Your task to perform on an android device: remove spam from my inbox in the gmail app Image 0: 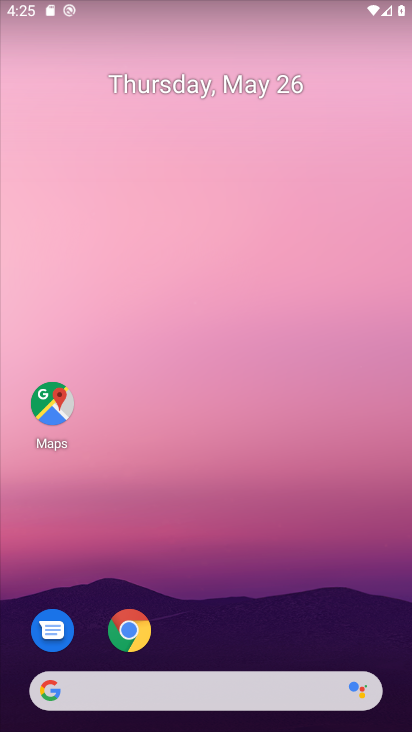
Step 0: drag from (269, 666) to (282, 172)
Your task to perform on an android device: remove spam from my inbox in the gmail app Image 1: 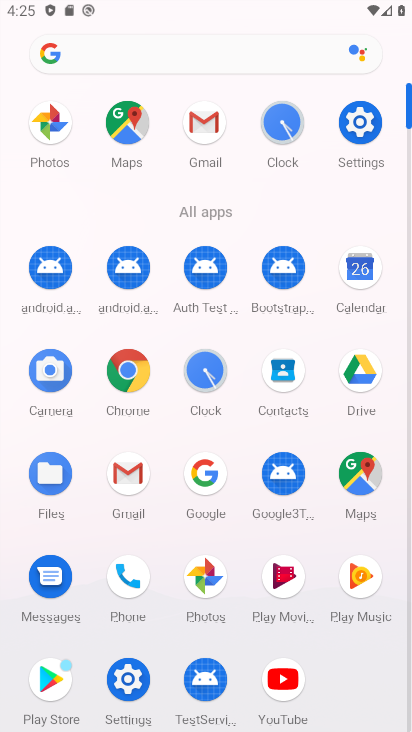
Step 1: click (215, 130)
Your task to perform on an android device: remove spam from my inbox in the gmail app Image 2: 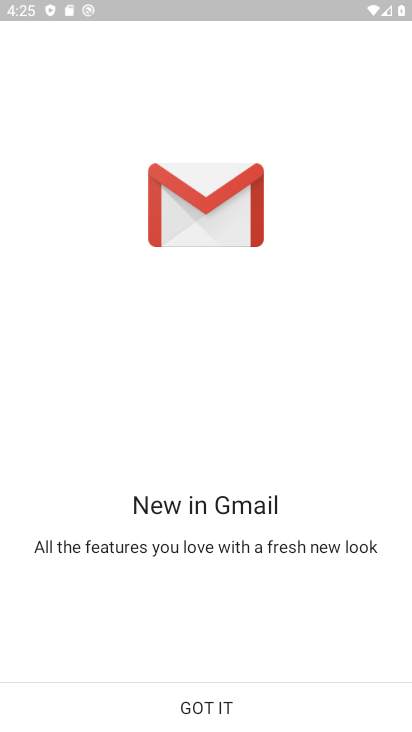
Step 2: click (192, 716)
Your task to perform on an android device: remove spam from my inbox in the gmail app Image 3: 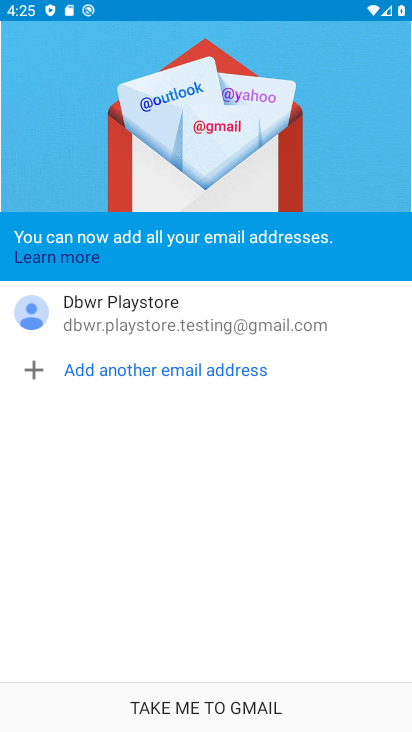
Step 3: click (192, 716)
Your task to perform on an android device: remove spam from my inbox in the gmail app Image 4: 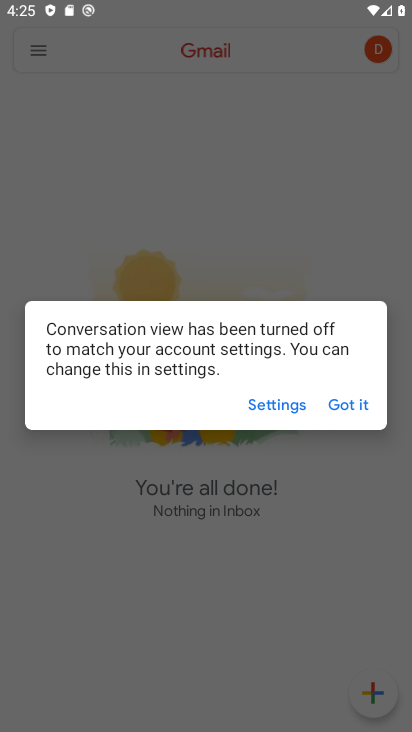
Step 4: click (362, 409)
Your task to perform on an android device: remove spam from my inbox in the gmail app Image 5: 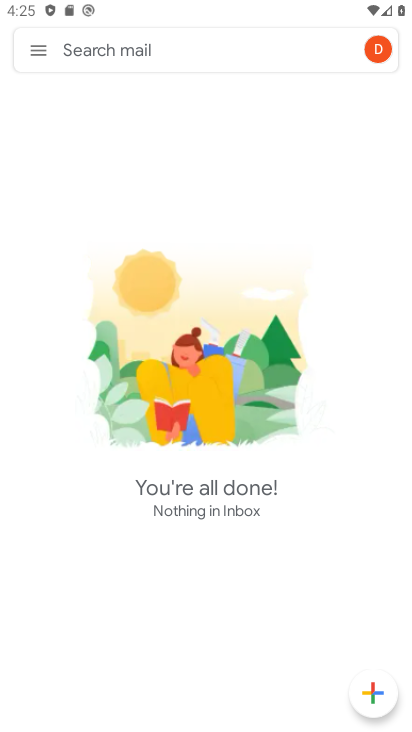
Step 5: click (37, 51)
Your task to perform on an android device: remove spam from my inbox in the gmail app Image 6: 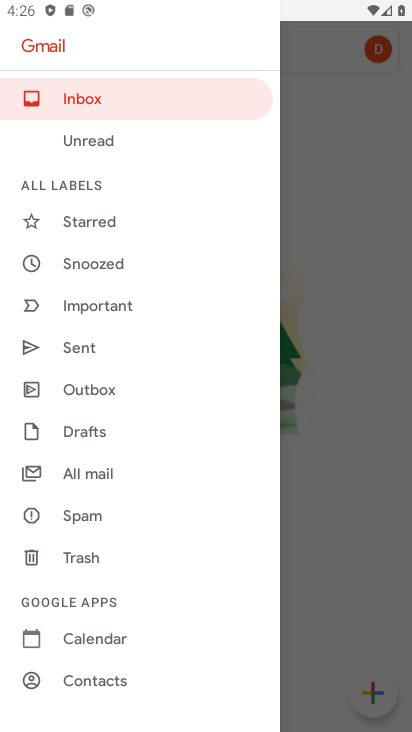
Step 6: click (87, 516)
Your task to perform on an android device: remove spam from my inbox in the gmail app Image 7: 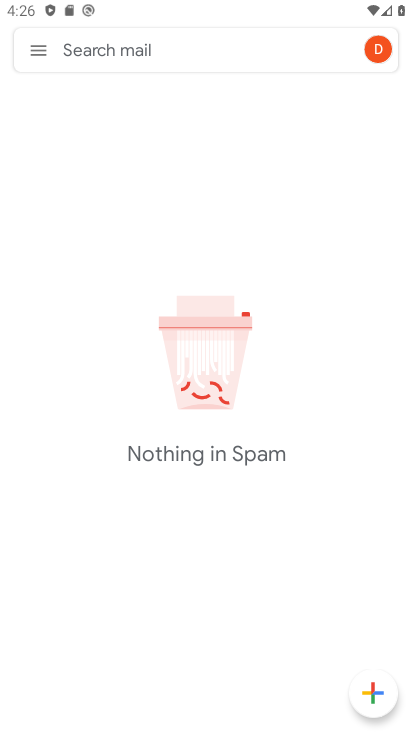
Step 7: task complete